Your task to perform on an android device: Search for sushi restaurants on Maps Image 0: 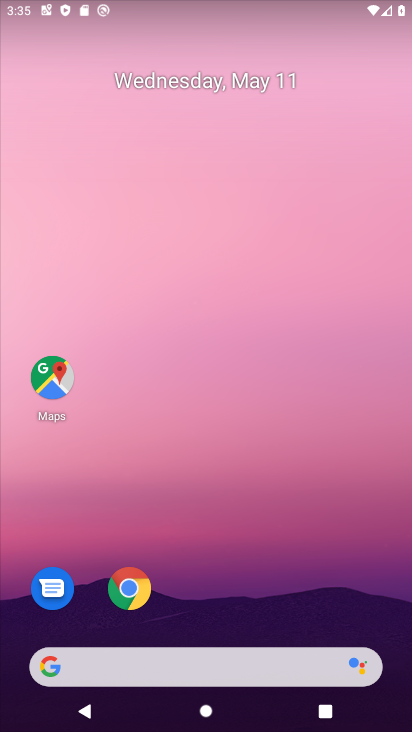
Step 0: drag from (249, 627) to (58, 6)
Your task to perform on an android device: Search for sushi restaurants on Maps Image 1: 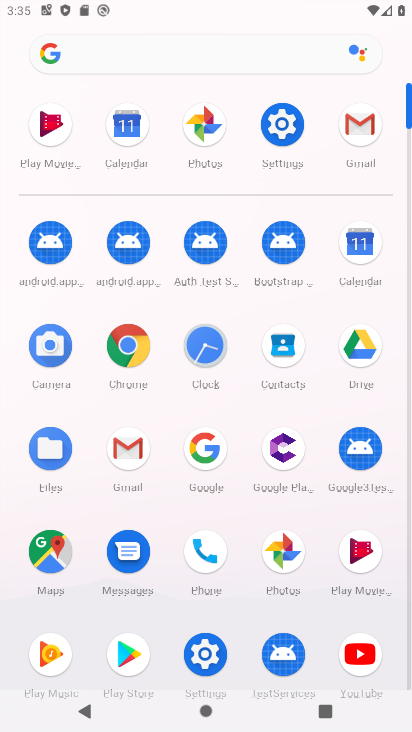
Step 1: click (31, 553)
Your task to perform on an android device: Search for sushi restaurants on Maps Image 2: 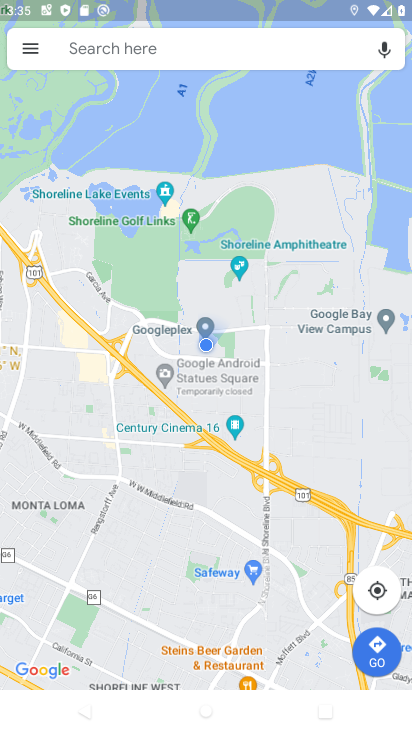
Step 2: click (143, 57)
Your task to perform on an android device: Search for sushi restaurants on Maps Image 3: 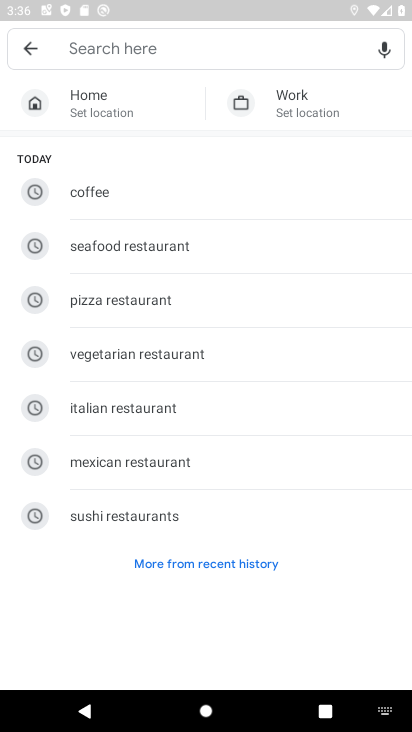
Step 3: type "Sushi restaurants"
Your task to perform on an android device: Search for sushi restaurants on Maps Image 4: 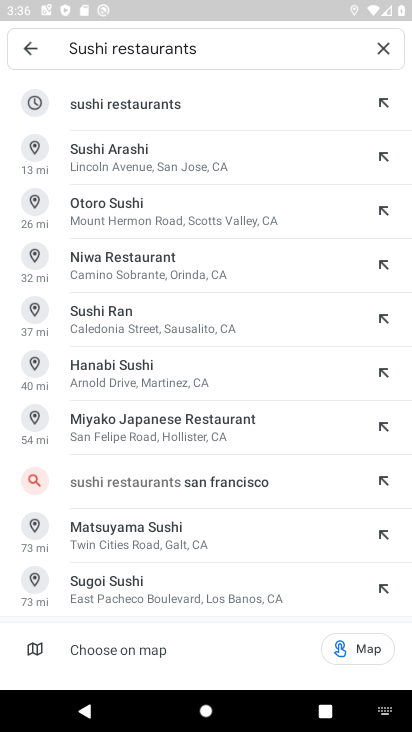
Step 4: click (185, 94)
Your task to perform on an android device: Search for sushi restaurants on Maps Image 5: 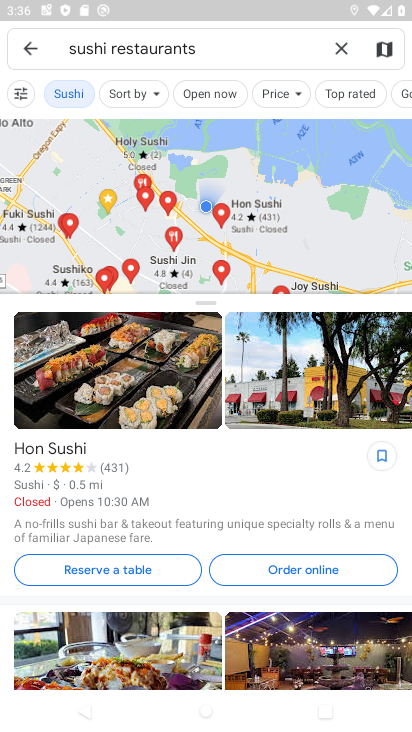
Step 5: task complete